Your task to perform on an android device: Search for hotels in Sydney Image 0: 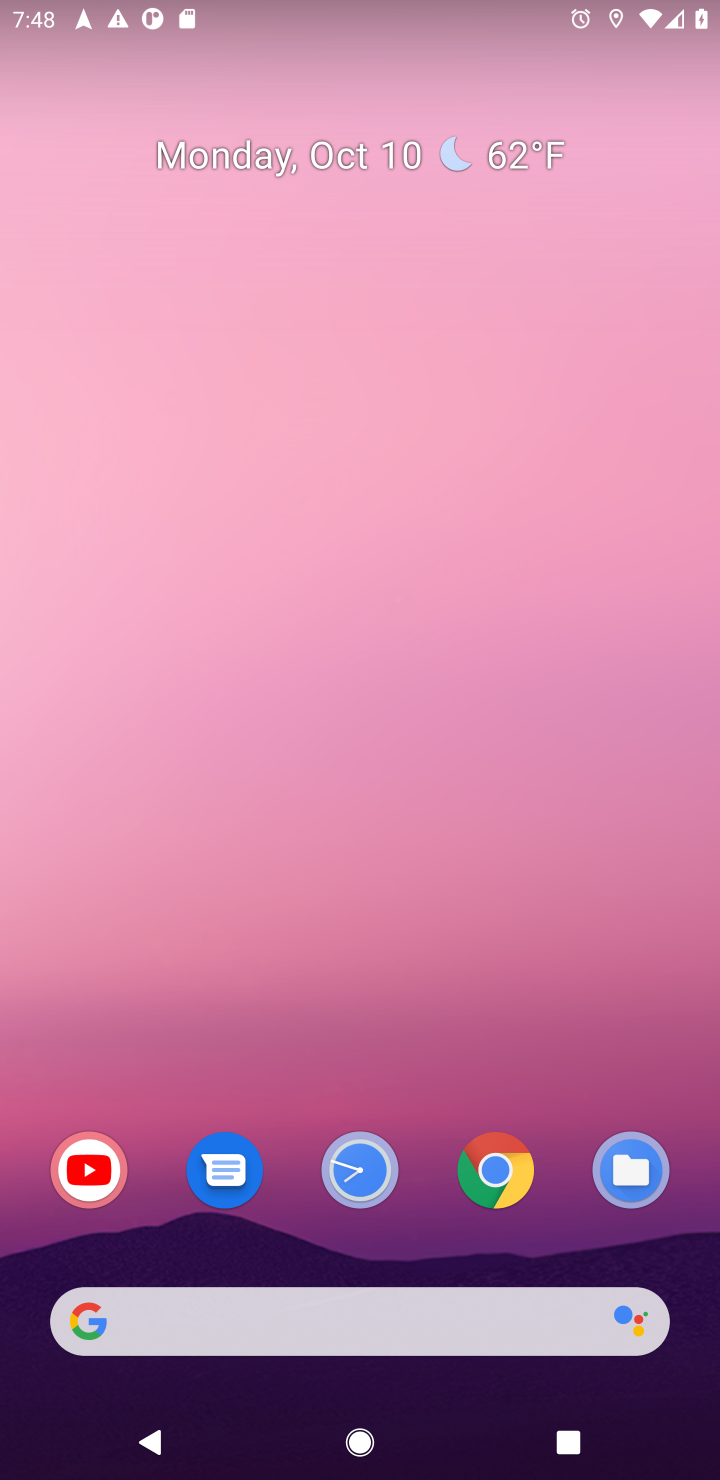
Step 0: click (488, 1158)
Your task to perform on an android device: Search for hotels in Sydney Image 1: 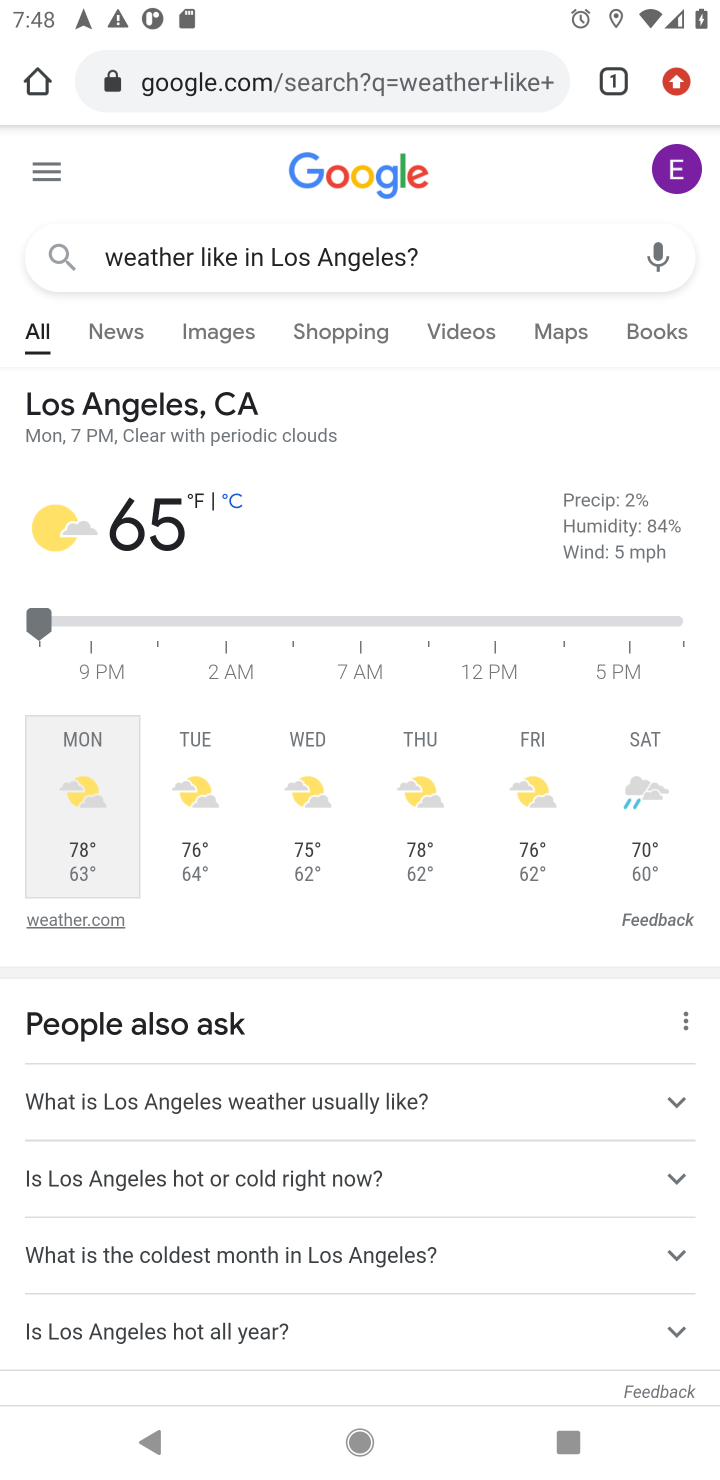
Step 1: click (439, 86)
Your task to perform on an android device: Search for hotels in Sydney Image 2: 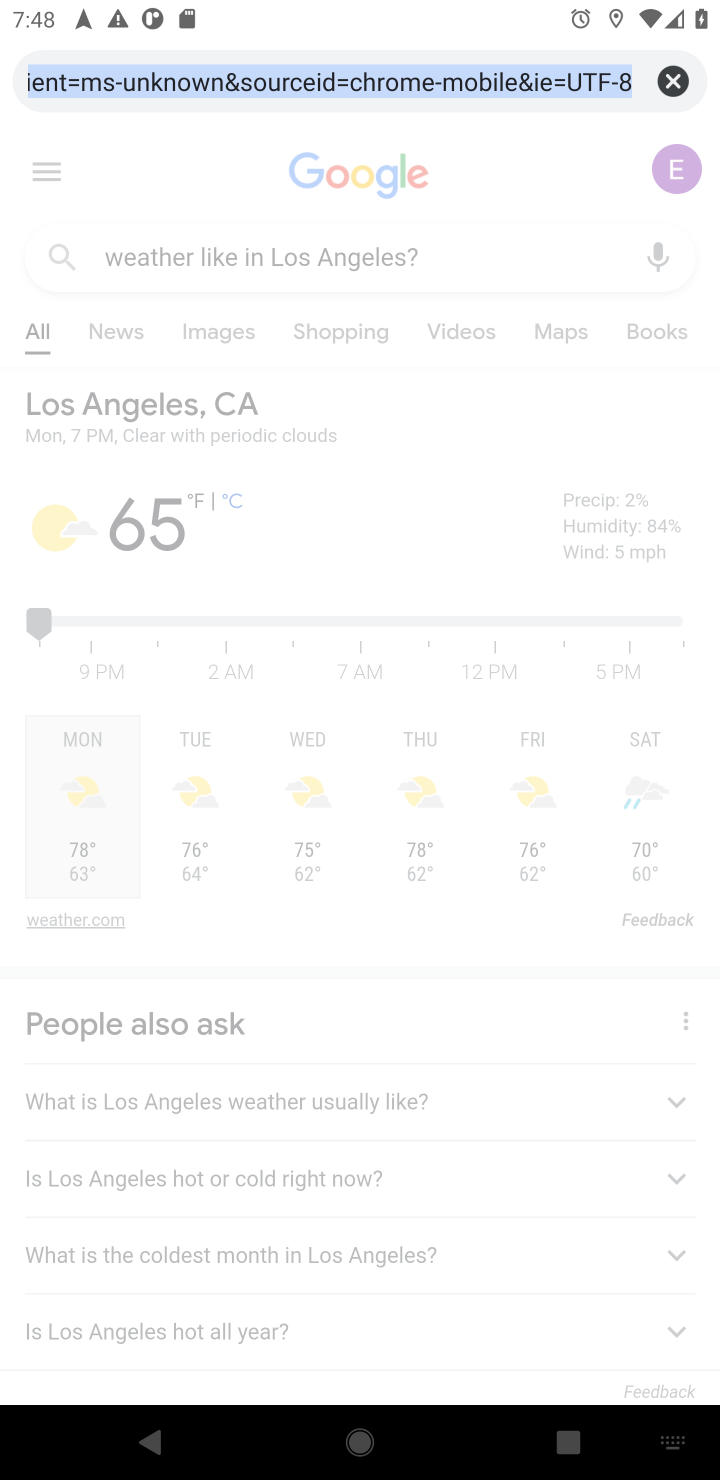
Step 2: type "hotels in Sydney"
Your task to perform on an android device: Search for hotels in Sydney Image 3: 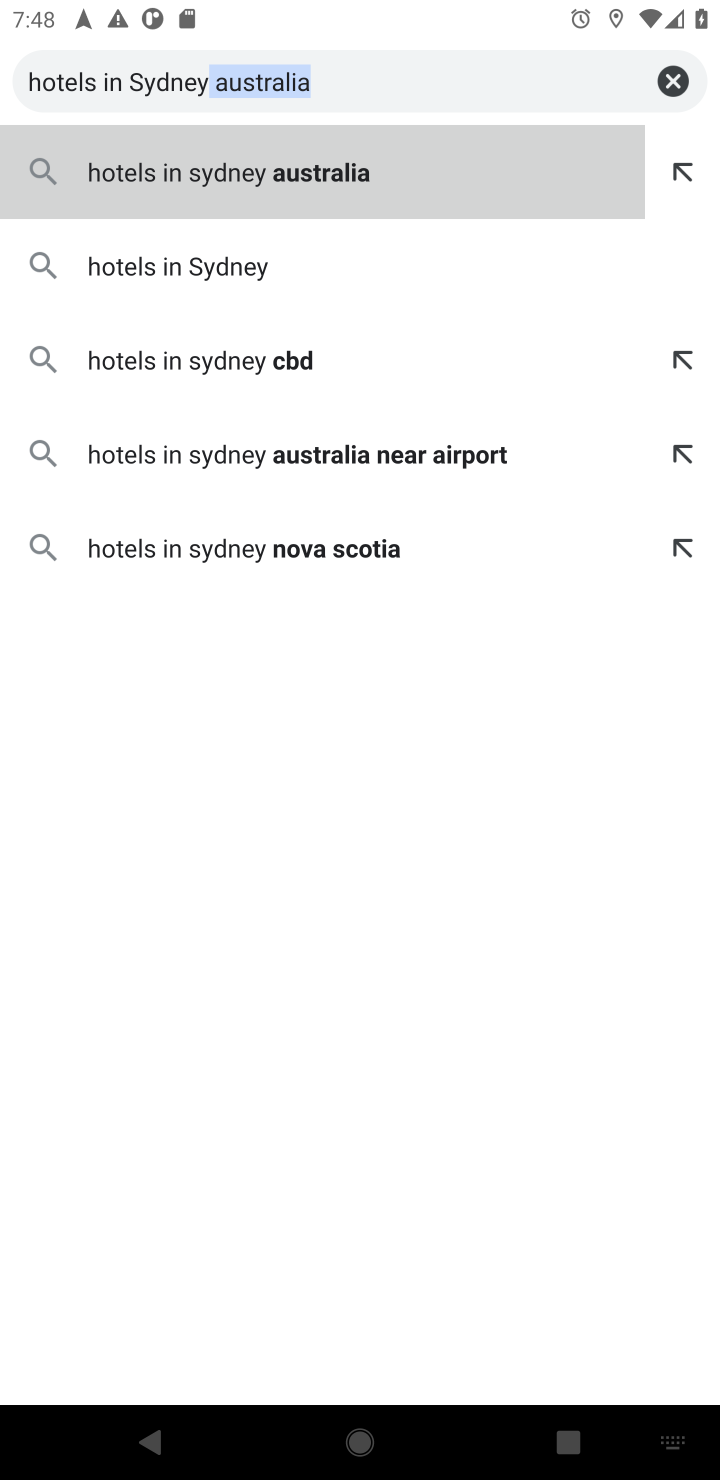
Step 3: click (469, 258)
Your task to perform on an android device: Search for hotels in Sydney Image 4: 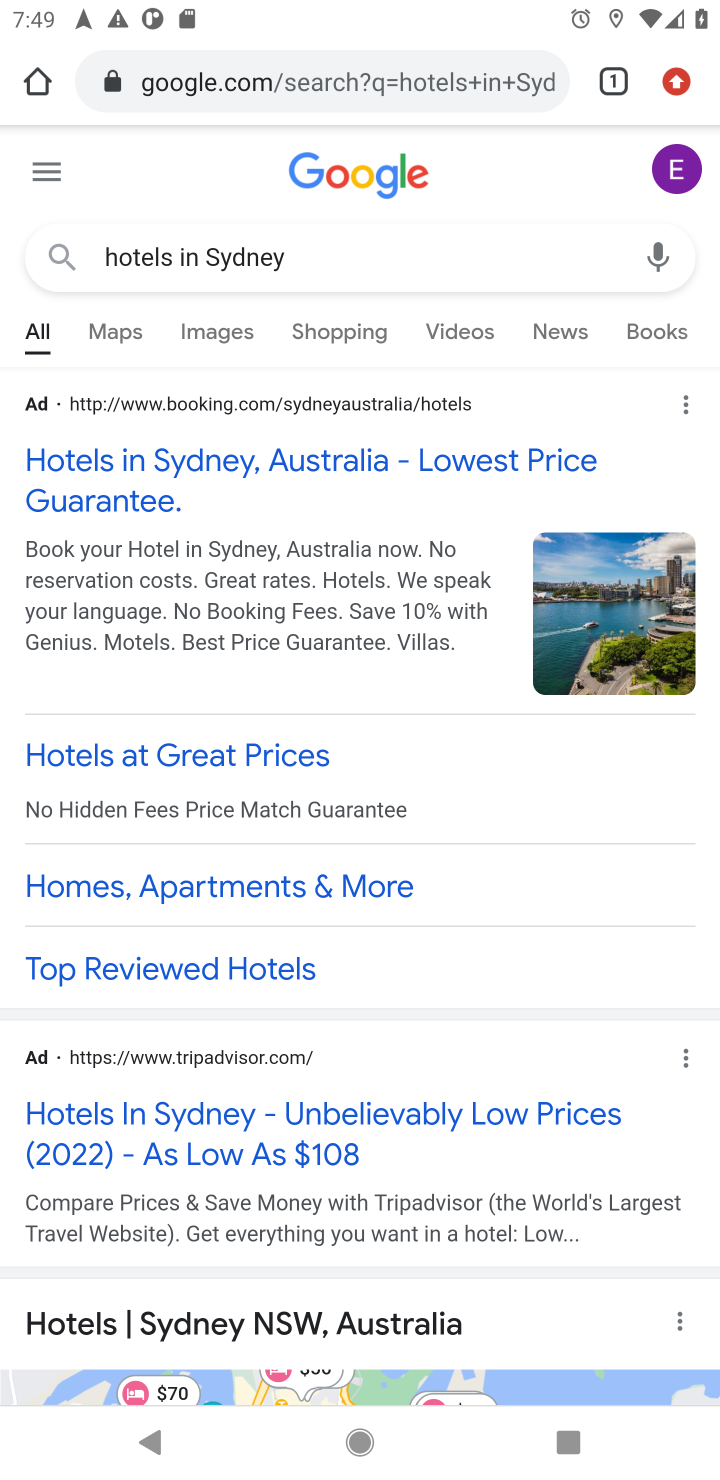
Step 4: task complete